Your task to perform on an android device: turn off airplane mode Image 0: 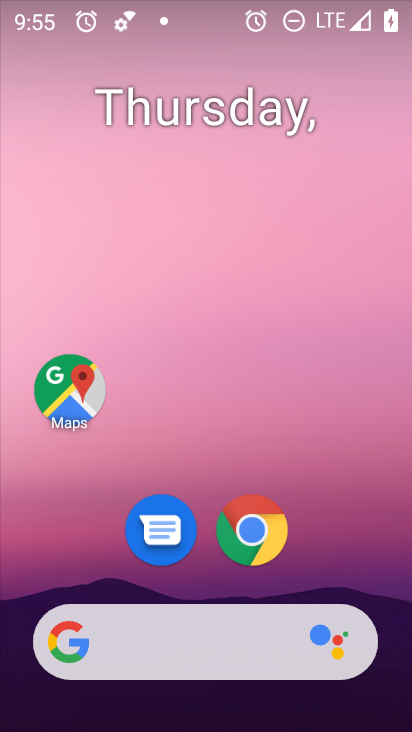
Step 0: drag from (340, 536) to (238, 6)
Your task to perform on an android device: turn off airplane mode Image 1: 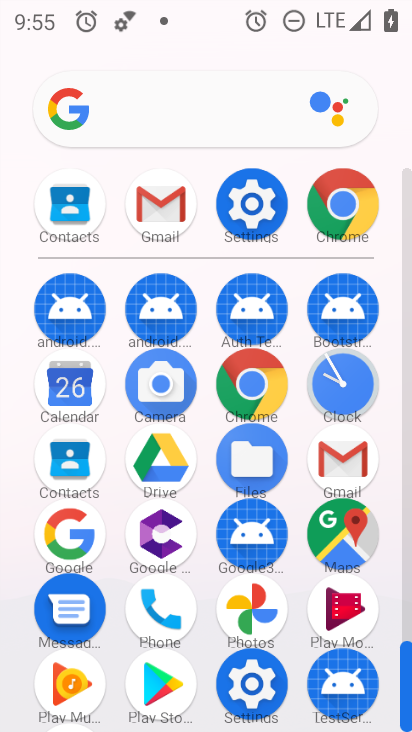
Step 1: click (250, 677)
Your task to perform on an android device: turn off airplane mode Image 2: 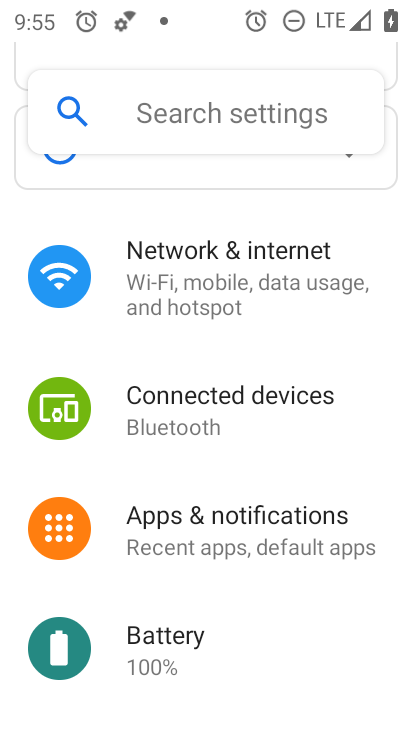
Step 2: click (261, 289)
Your task to perform on an android device: turn off airplane mode Image 3: 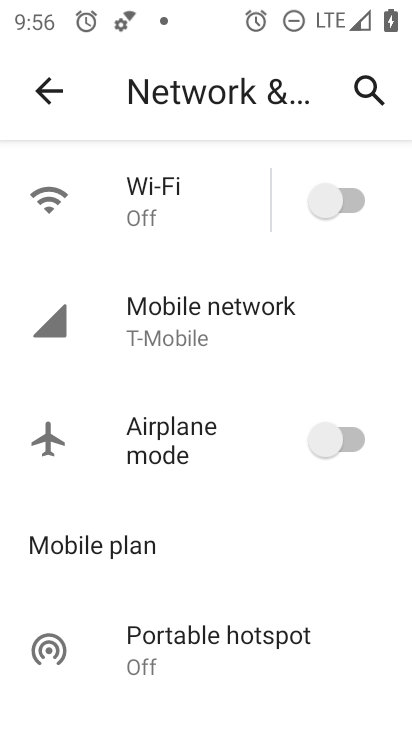
Step 3: task complete